Your task to perform on an android device: Open Google Maps Image 0: 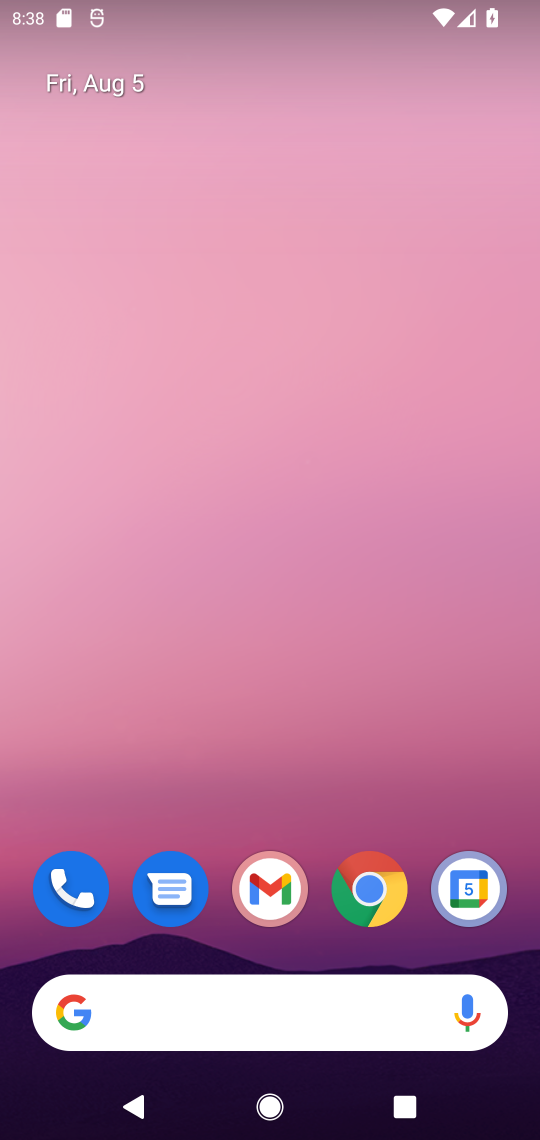
Step 0: drag from (275, 989) to (326, 10)
Your task to perform on an android device: Open Google Maps Image 1: 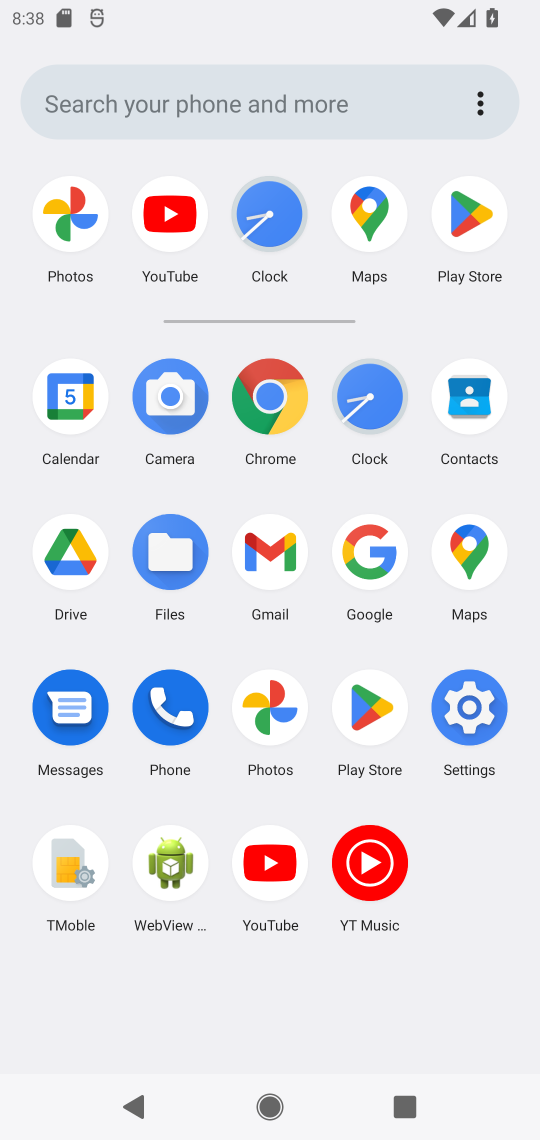
Step 1: click (469, 546)
Your task to perform on an android device: Open Google Maps Image 2: 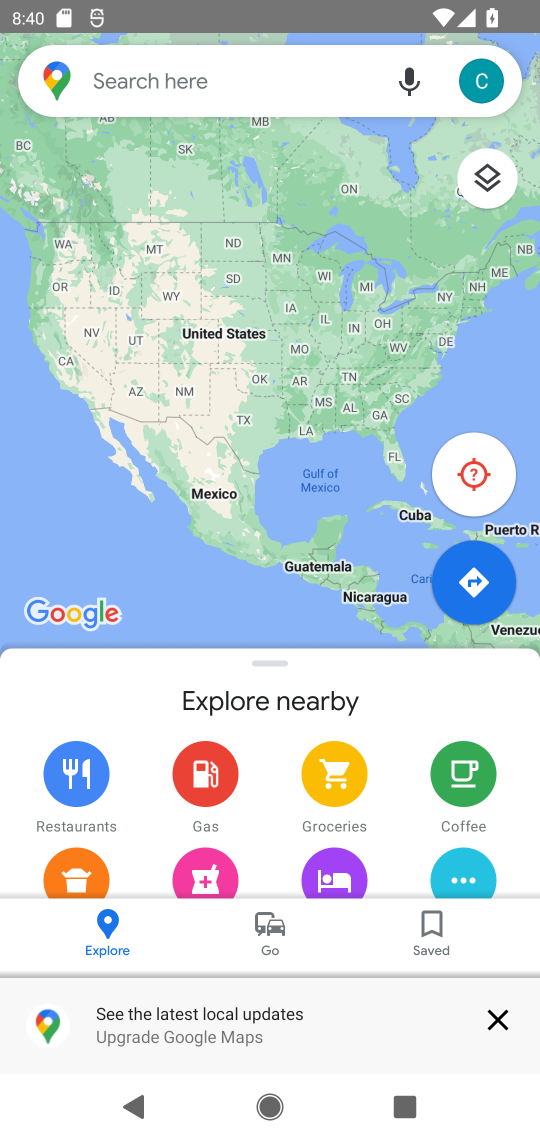
Step 2: task complete